Your task to perform on an android device: turn vacation reply on in the gmail app Image 0: 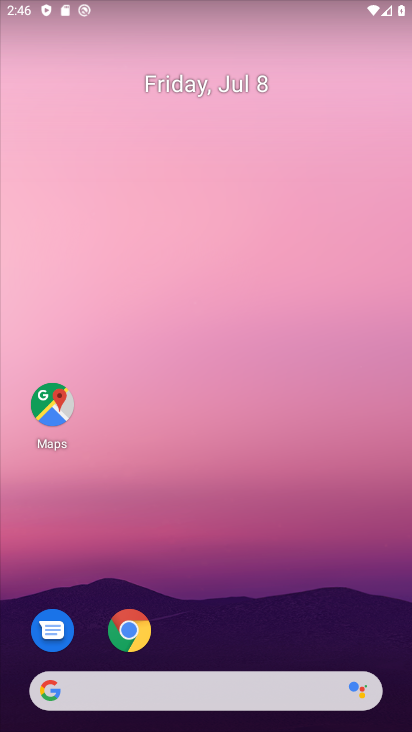
Step 0: drag from (287, 616) to (234, 62)
Your task to perform on an android device: turn vacation reply on in the gmail app Image 1: 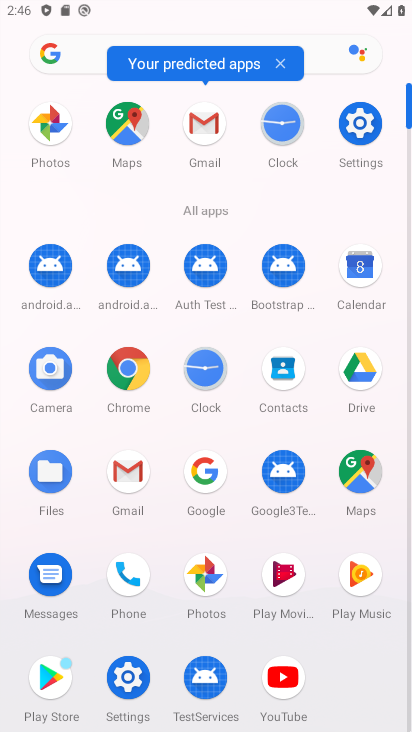
Step 1: click (122, 474)
Your task to perform on an android device: turn vacation reply on in the gmail app Image 2: 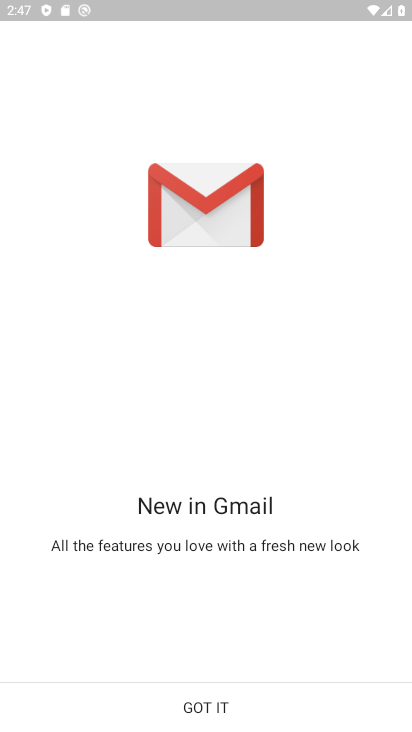
Step 2: click (208, 698)
Your task to perform on an android device: turn vacation reply on in the gmail app Image 3: 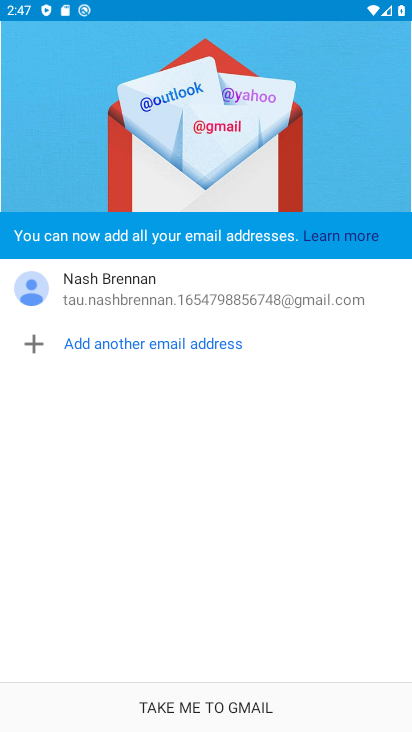
Step 3: click (208, 698)
Your task to perform on an android device: turn vacation reply on in the gmail app Image 4: 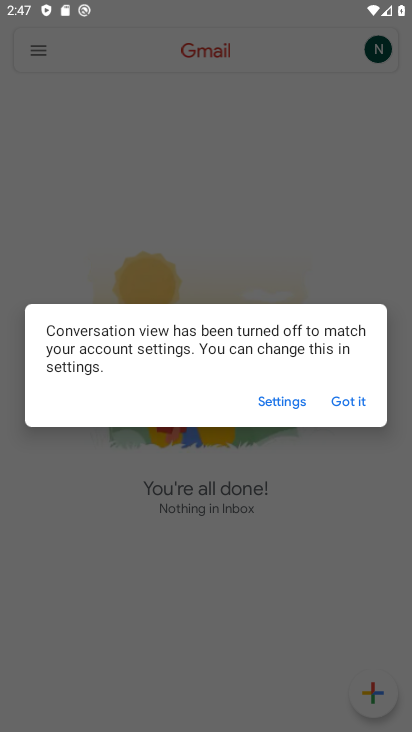
Step 4: click (355, 408)
Your task to perform on an android device: turn vacation reply on in the gmail app Image 5: 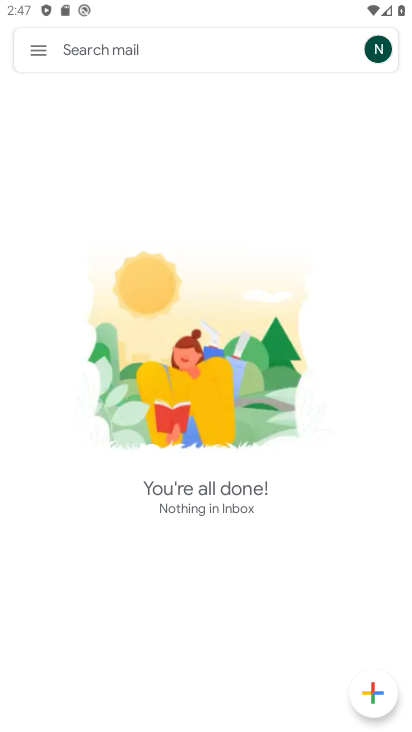
Step 5: click (33, 50)
Your task to perform on an android device: turn vacation reply on in the gmail app Image 6: 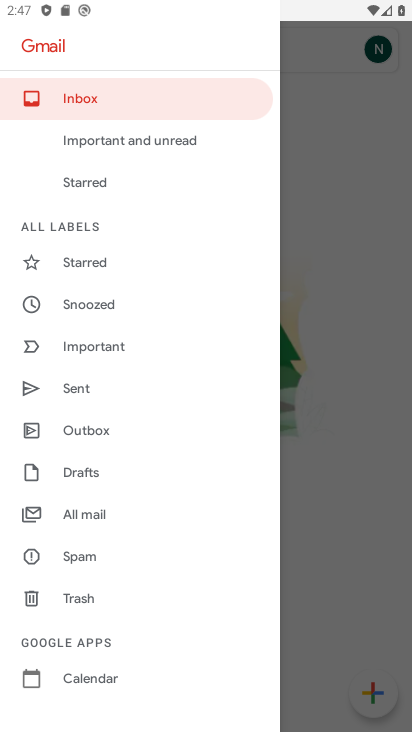
Step 6: drag from (140, 641) to (193, 280)
Your task to perform on an android device: turn vacation reply on in the gmail app Image 7: 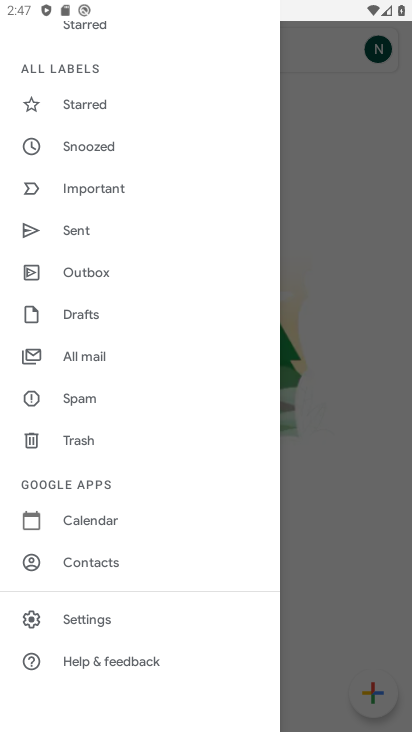
Step 7: click (92, 612)
Your task to perform on an android device: turn vacation reply on in the gmail app Image 8: 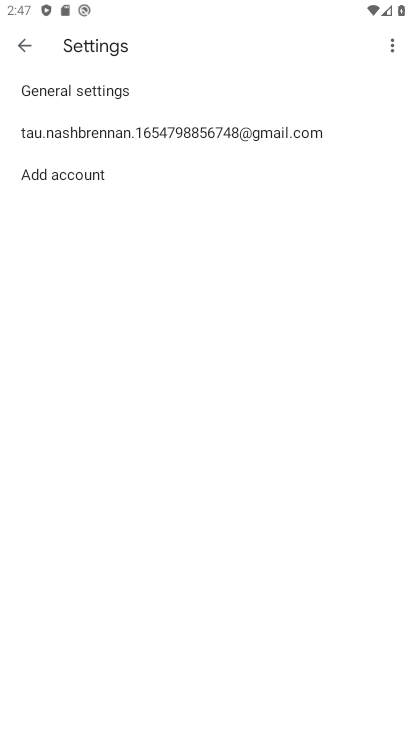
Step 8: click (221, 125)
Your task to perform on an android device: turn vacation reply on in the gmail app Image 9: 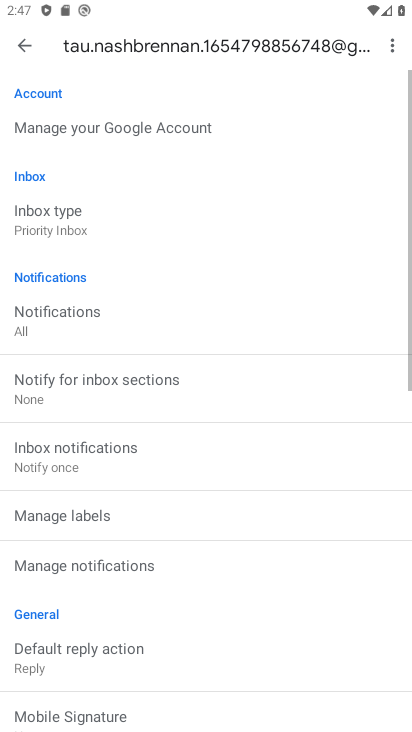
Step 9: drag from (196, 609) to (256, 214)
Your task to perform on an android device: turn vacation reply on in the gmail app Image 10: 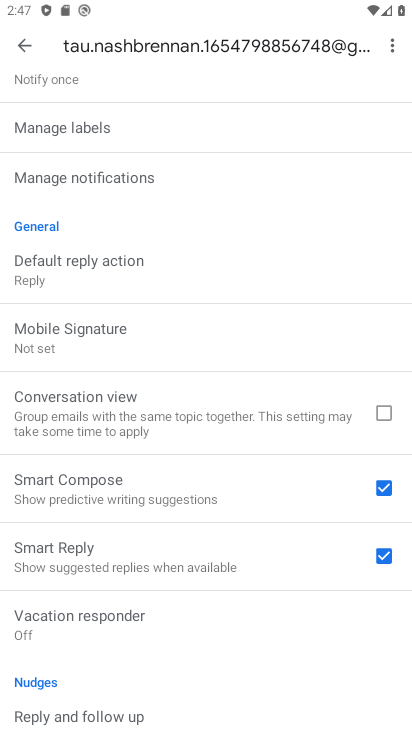
Step 10: click (108, 615)
Your task to perform on an android device: turn vacation reply on in the gmail app Image 11: 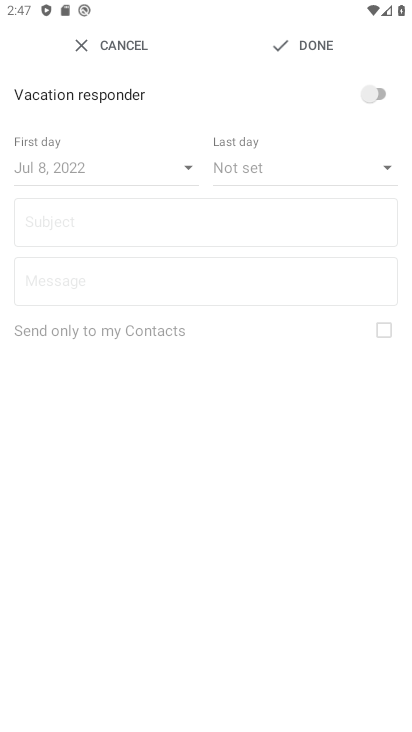
Step 11: click (378, 93)
Your task to perform on an android device: turn vacation reply on in the gmail app Image 12: 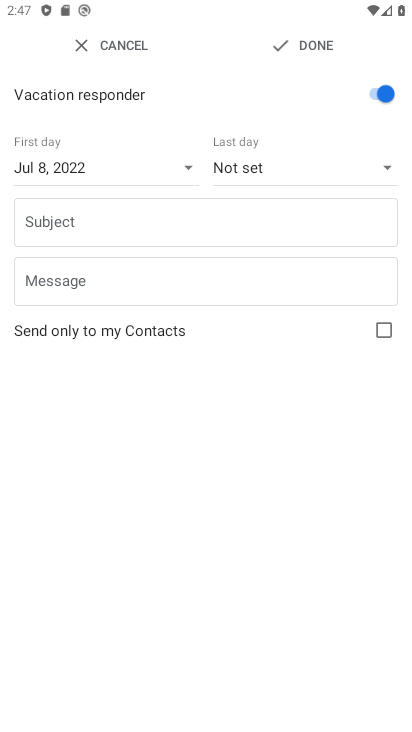
Step 12: click (313, 37)
Your task to perform on an android device: turn vacation reply on in the gmail app Image 13: 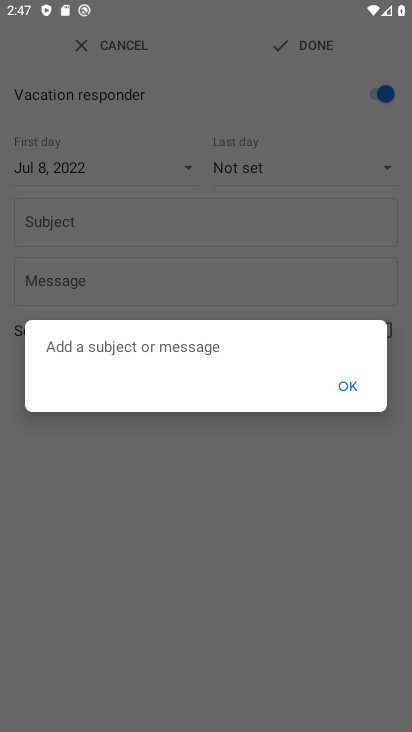
Step 13: click (358, 386)
Your task to perform on an android device: turn vacation reply on in the gmail app Image 14: 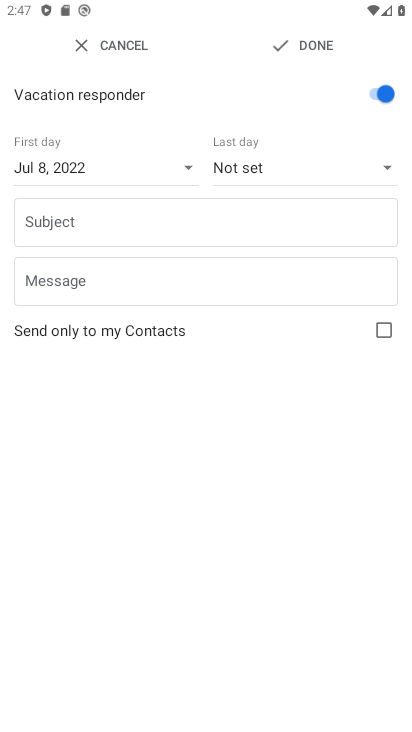
Step 14: task complete